Your task to perform on an android device: allow notifications from all sites in the chrome app Image 0: 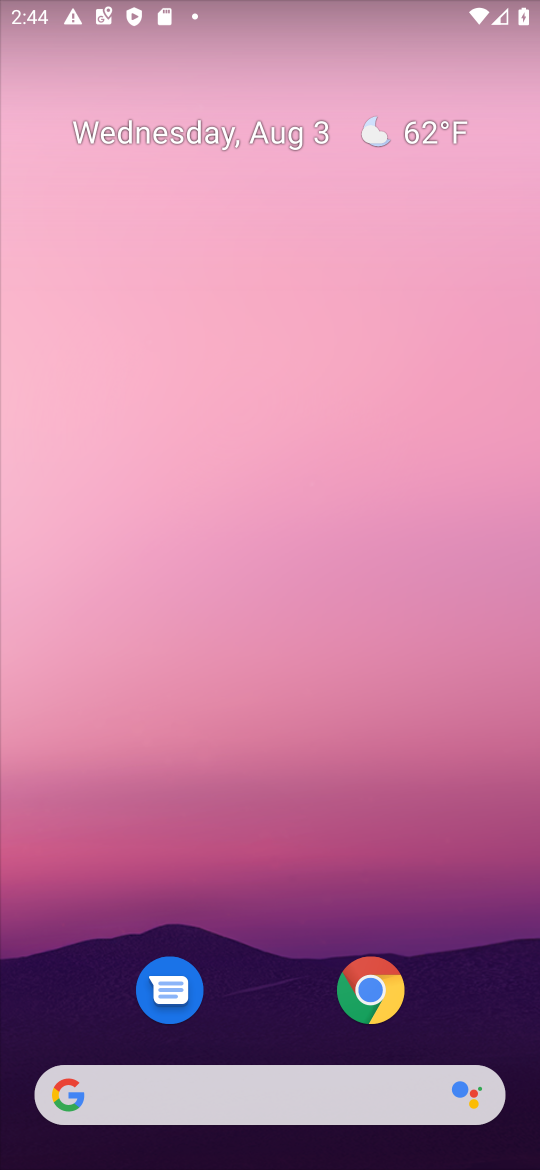
Step 0: click (391, 1019)
Your task to perform on an android device: allow notifications from all sites in the chrome app Image 1: 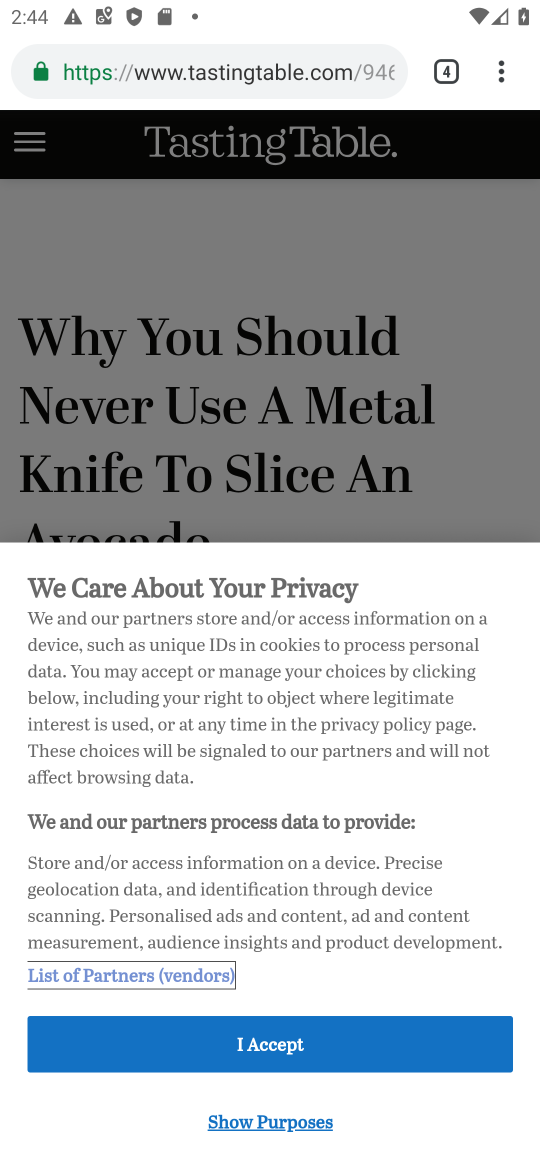
Step 1: click (490, 69)
Your task to perform on an android device: allow notifications from all sites in the chrome app Image 2: 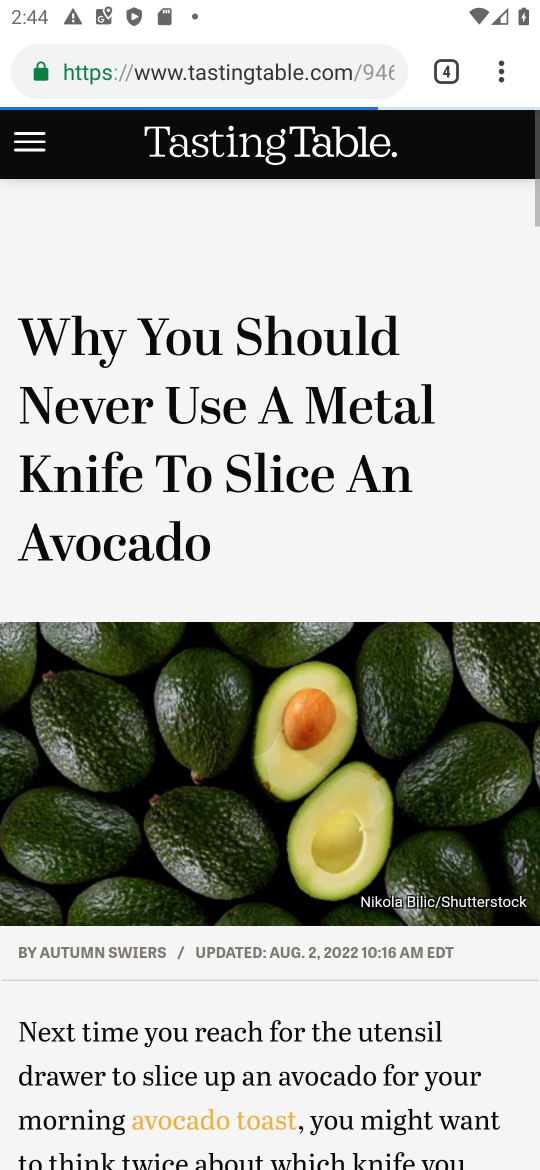
Step 2: click (506, 68)
Your task to perform on an android device: allow notifications from all sites in the chrome app Image 3: 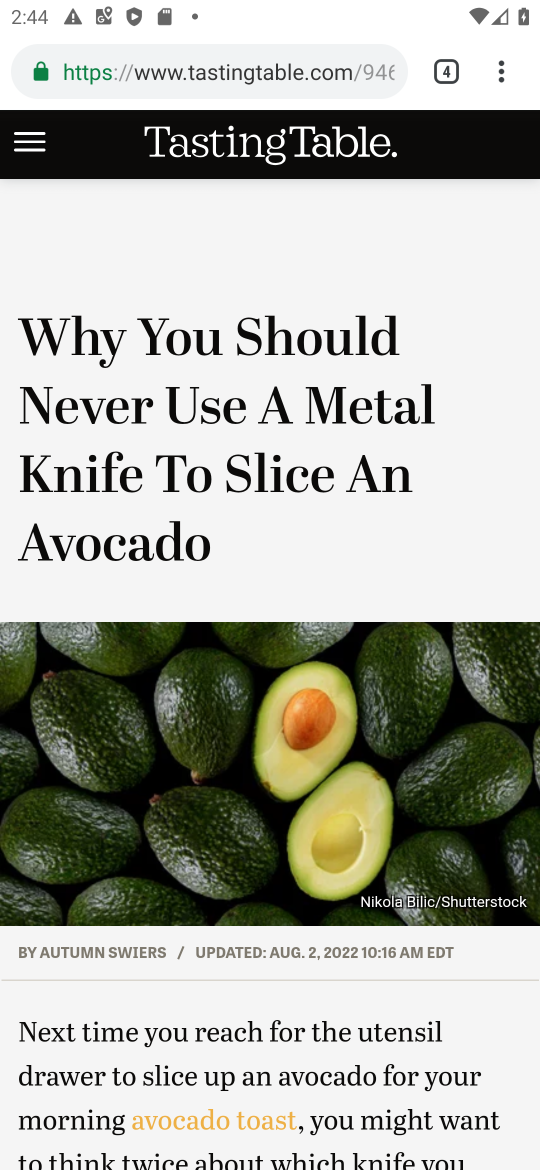
Step 3: click (505, 73)
Your task to perform on an android device: allow notifications from all sites in the chrome app Image 4: 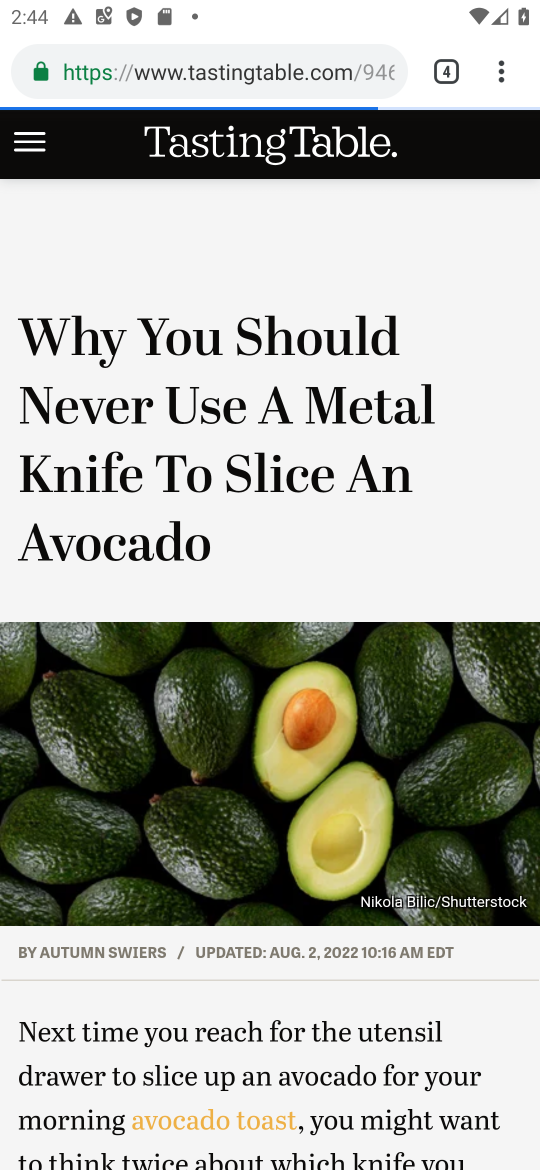
Step 4: click (498, 71)
Your task to perform on an android device: allow notifications from all sites in the chrome app Image 5: 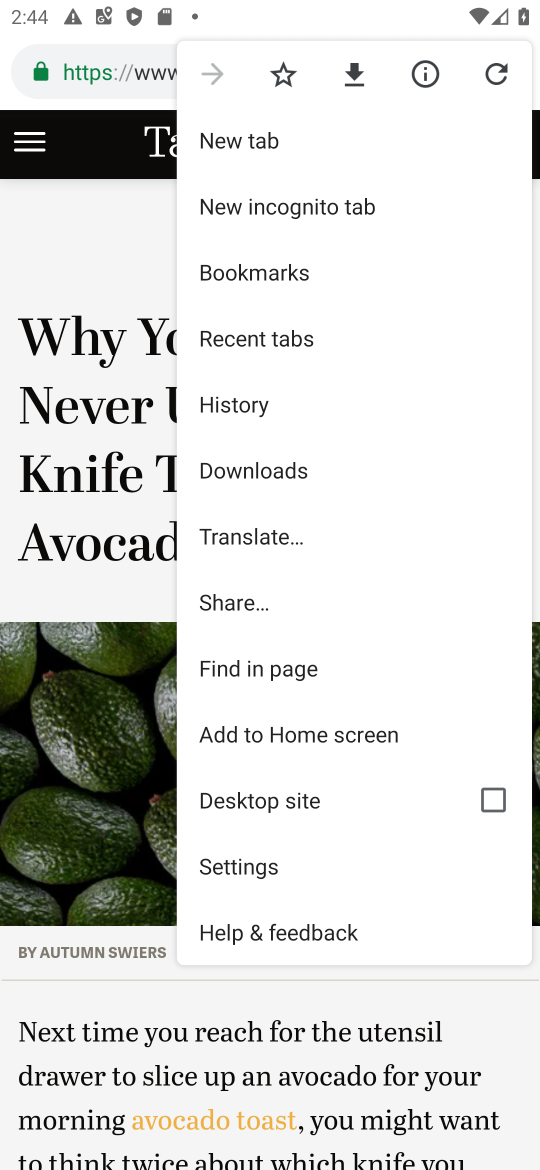
Step 5: click (262, 857)
Your task to perform on an android device: allow notifications from all sites in the chrome app Image 6: 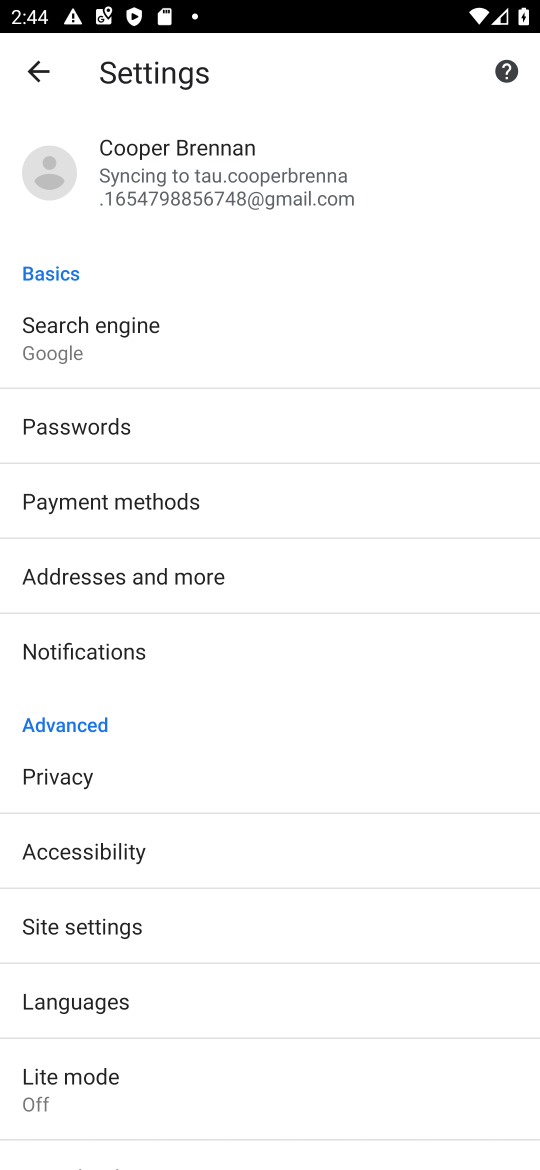
Step 6: click (126, 649)
Your task to perform on an android device: allow notifications from all sites in the chrome app Image 7: 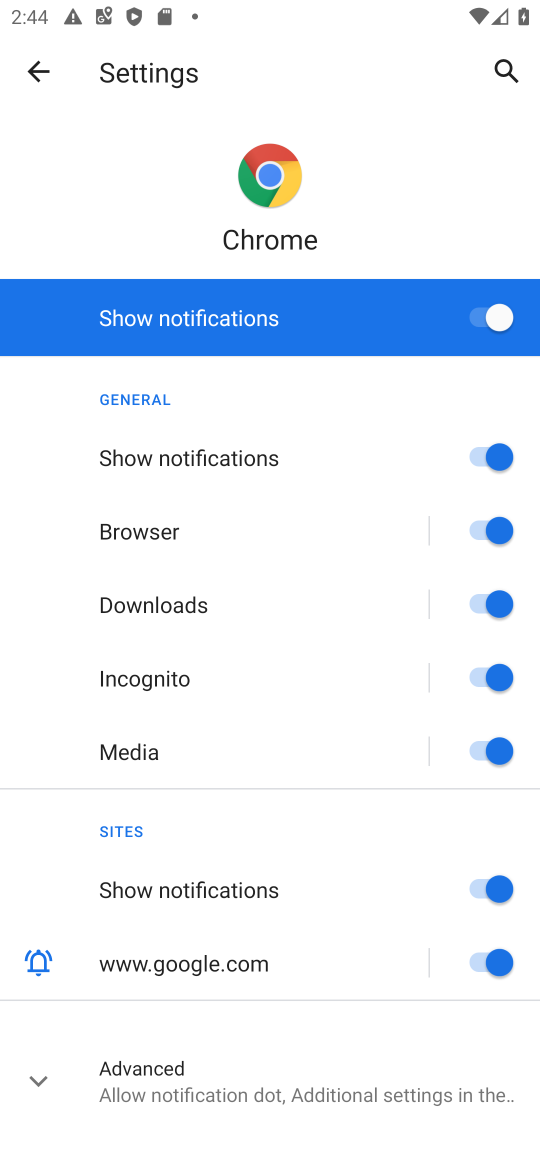
Step 7: click (26, 78)
Your task to perform on an android device: allow notifications from all sites in the chrome app Image 8: 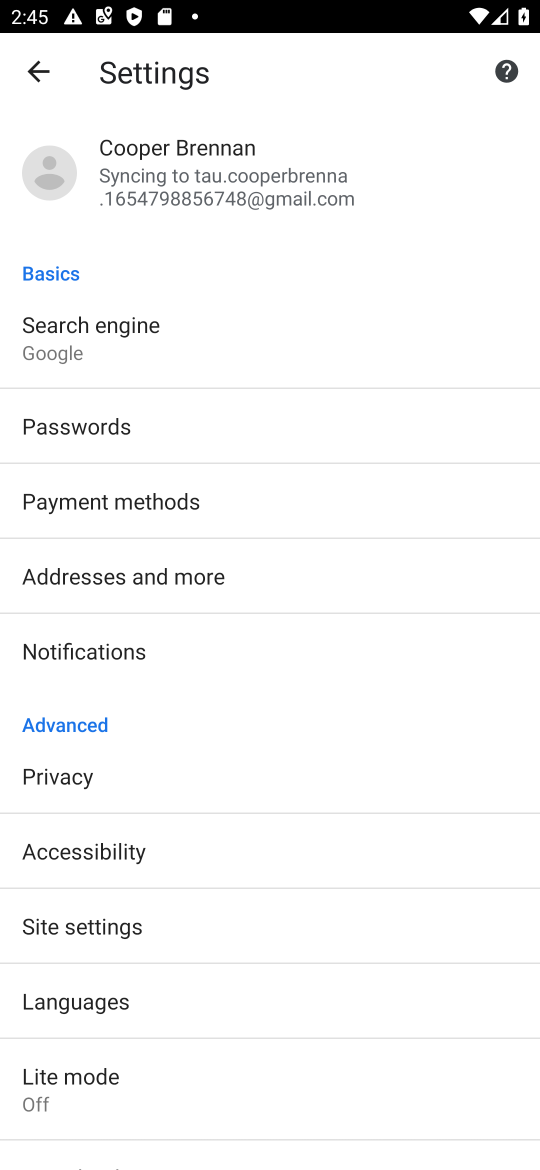
Step 8: click (69, 921)
Your task to perform on an android device: allow notifications from all sites in the chrome app Image 9: 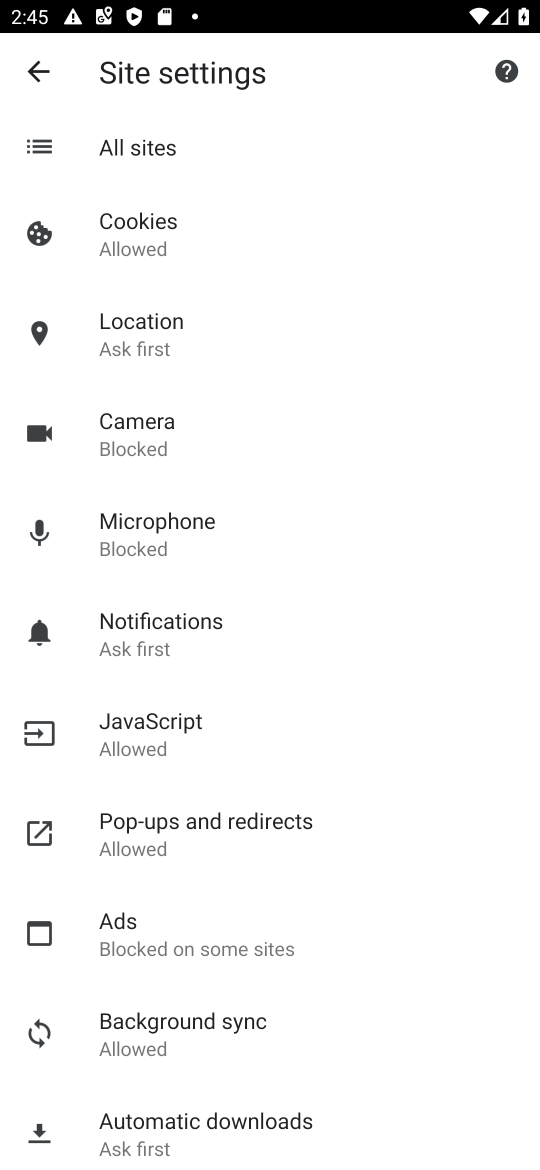
Step 9: click (166, 631)
Your task to perform on an android device: allow notifications from all sites in the chrome app Image 10: 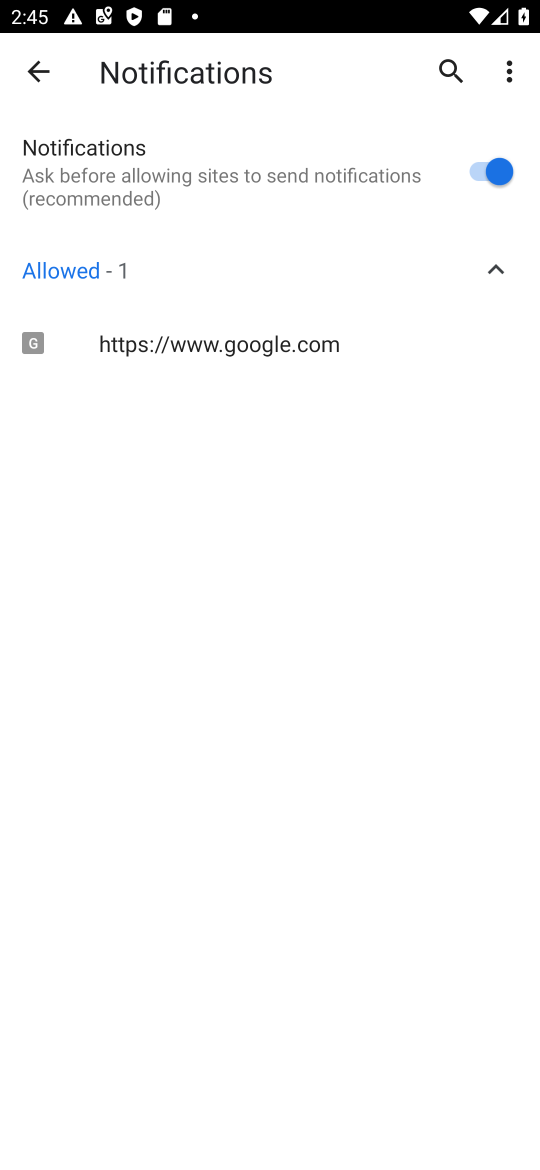
Step 10: task complete